Your task to perform on an android device: Is it going to rain tomorrow? Image 0: 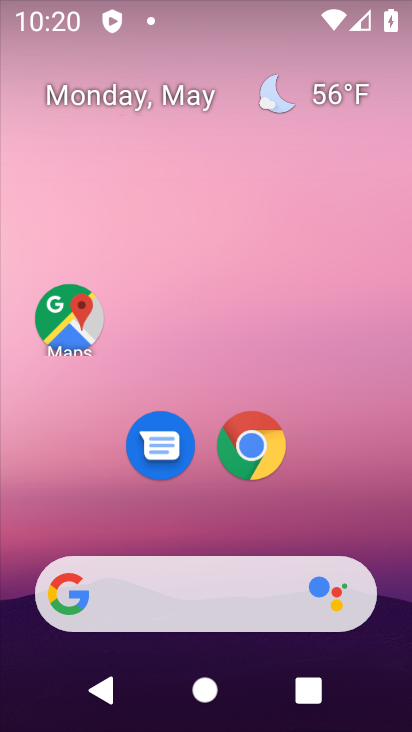
Step 0: drag from (229, 520) to (209, 250)
Your task to perform on an android device: Is it going to rain tomorrow? Image 1: 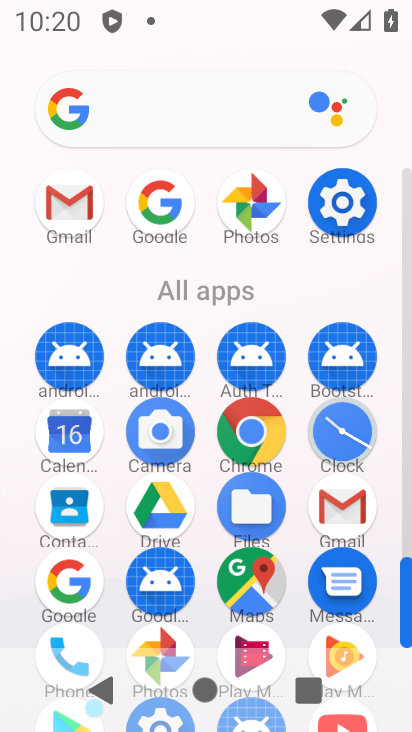
Step 1: click (63, 581)
Your task to perform on an android device: Is it going to rain tomorrow? Image 2: 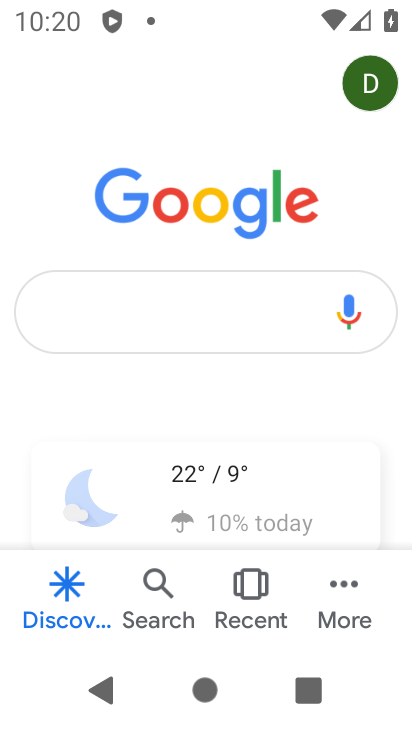
Step 2: click (178, 315)
Your task to perform on an android device: Is it going to rain tomorrow? Image 3: 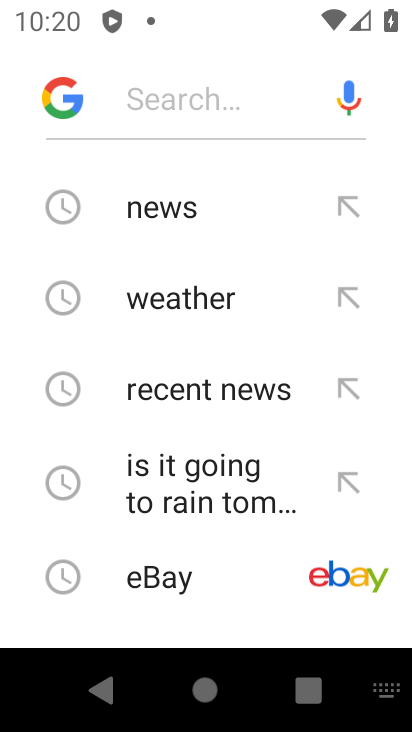
Step 3: click (165, 489)
Your task to perform on an android device: Is it going to rain tomorrow? Image 4: 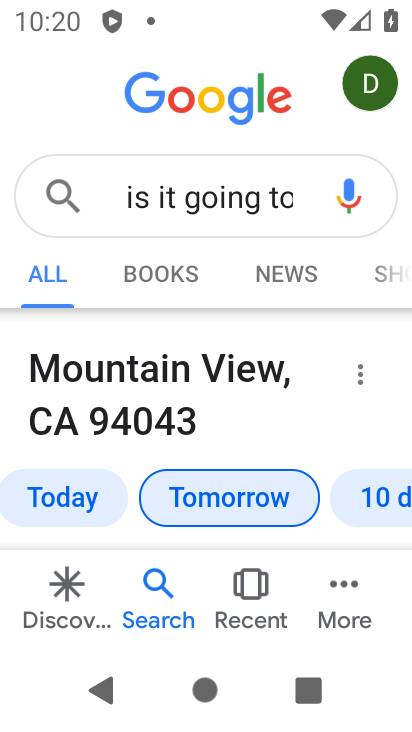
Step 4: task complete